Your task to perform on an android device: turn off priority inbox in the gmail app Image 0: 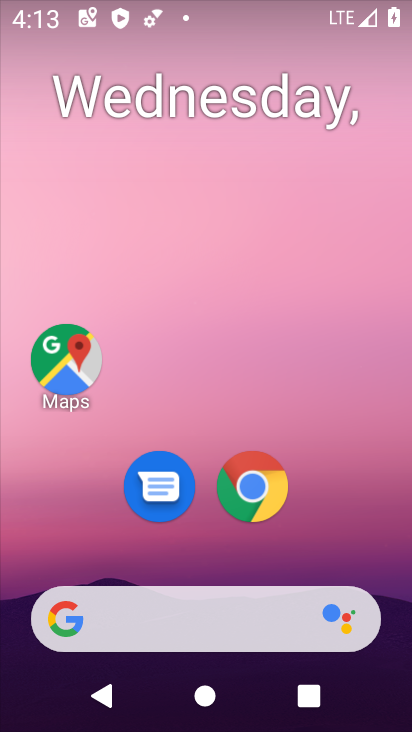
Step 0: drag from (194, 589) to (263, 129)
Your task to perform on an android device: turn off priority inbox in the gmail app Image 1: 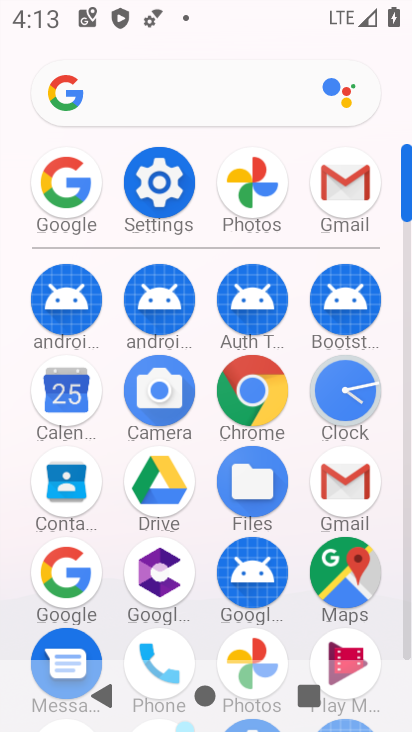
Step 1: click (334, 486)
Your task to perform on an android device: turn off priority inbox in the gmail app Image 2: 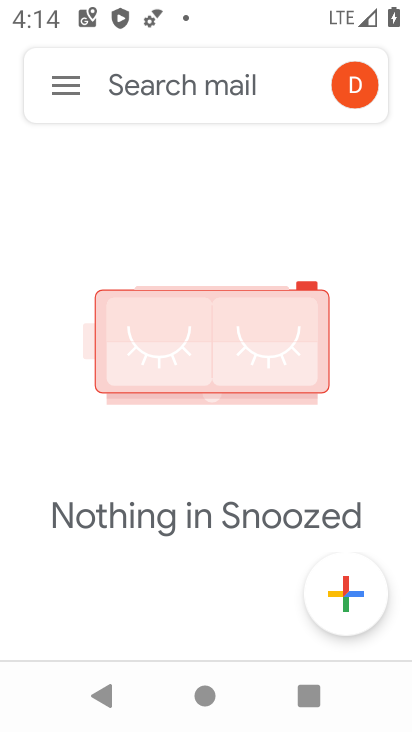
Step 2: click (68, 81)
Your task to perform on an android device: turn off priority inbox in the gmail app Image 3: 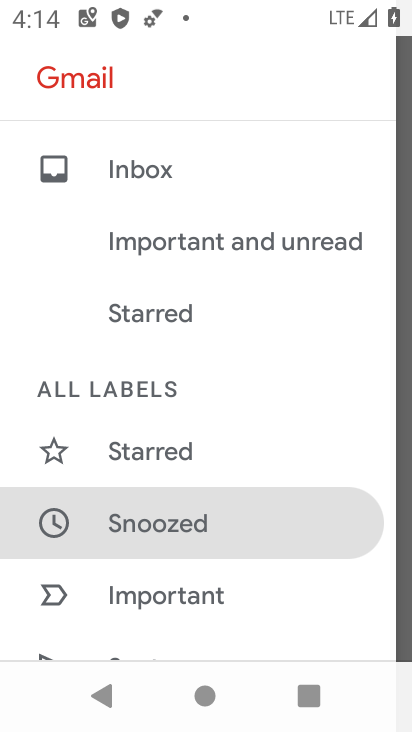
Step 3: drag from (245, 645) to (227, 306)
Your task to perform on an android device: turn off priority inbox in the gmail app Image 4: 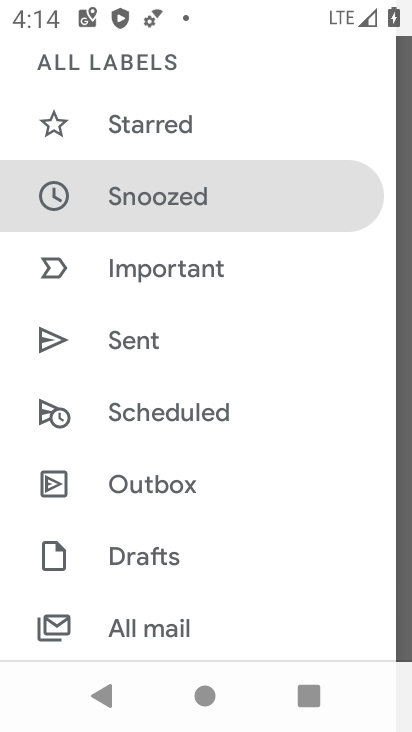
Step 4: drag from (188, 615) to (228, 324)
Your task to perform on an android device: turn off priority inbox in the gmail app Image 5: 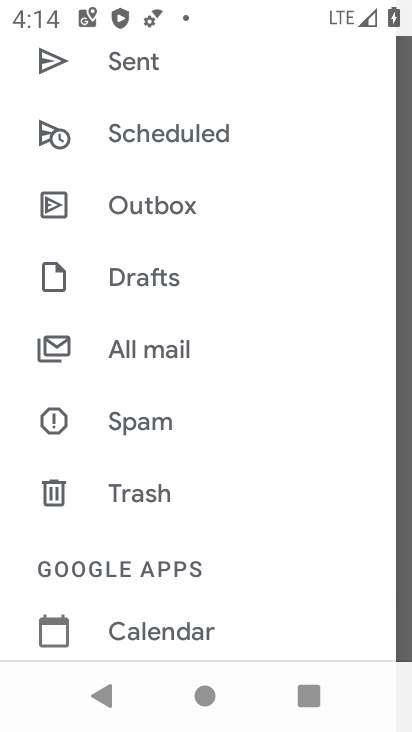
Step 5: drag from (246, 420) to (261, 292)
Your task to perform on an android device: turn off priority inbox in the gmail app Image 6: 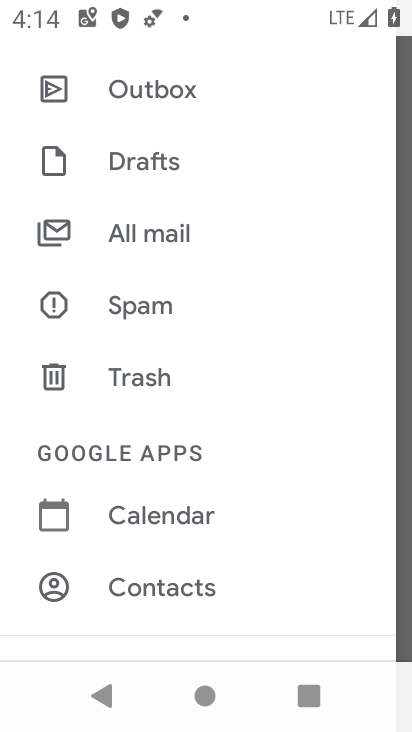
Step 6: drag from (226, 601) to (239, 296)
Your task to perform on an android device: turn off priority inbox in the gmail app Image 7: 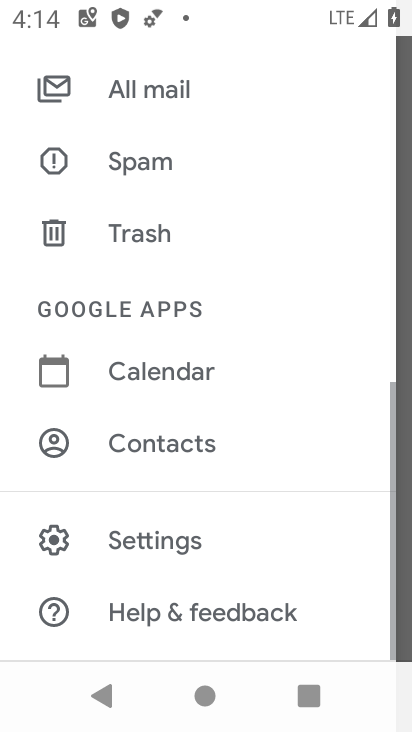
Step 7: click (172, 546)
Your task to perform on an android device: turn off priority inbox in the gmail app Image 8: 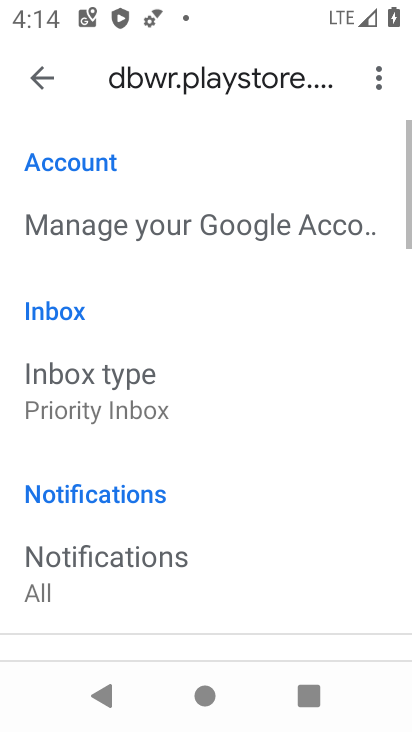
Step 8: drag from (191, 608) to (255, 204)
Your task to perform on an android device: turn off priority inbox in the gmail app Image 9: 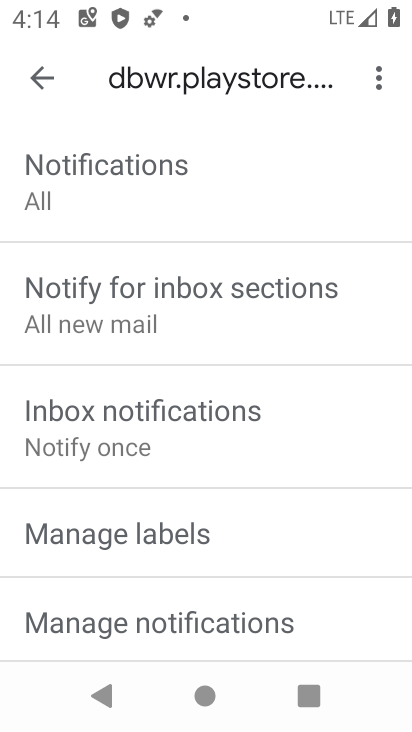
Step 9: drag from (202, 603) to (238, 267)
Your task to perform on an android device: turn off priority inbox in the gmail app Image 10: 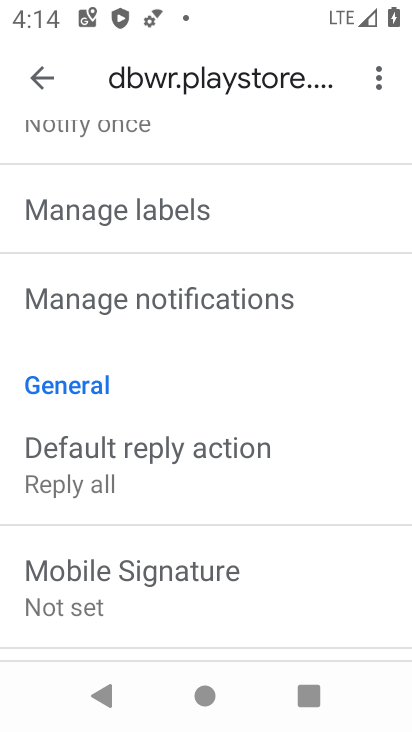
Step 10: drag from (202, 636) to (252, 326)
Your task to perform on an android device: turn off priority inbox in the gmail app Image 11: 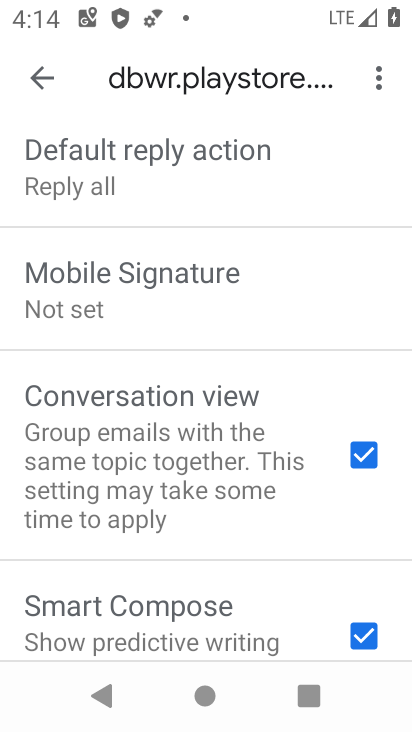
Step 11: drag from (352, 152) to (242, 601)
Your task to perform on an android device: turn off priority inbox in the gmail app Image 12: 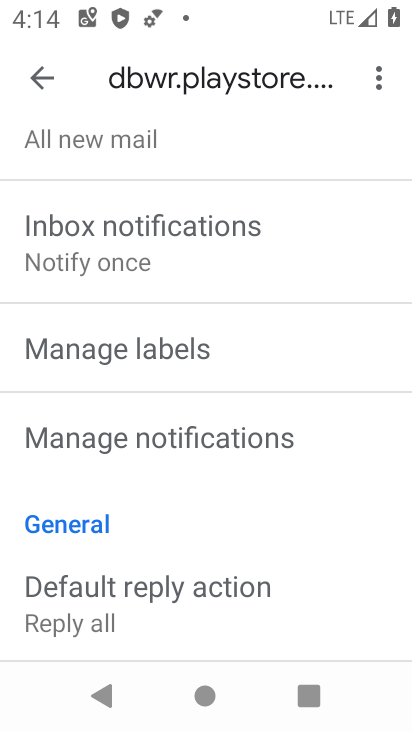
Step 12: drag from (365, 203) to (313, 635)
Your task to perform on an android device: turn off priority inbox in the gmail app Image 13: 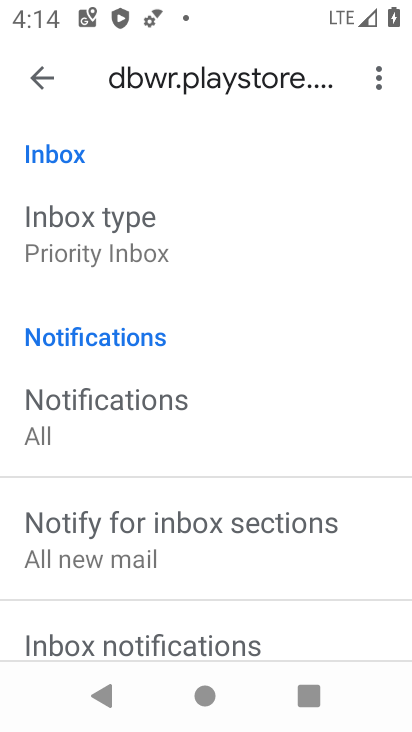
Step 13: click (130, 239)
Your task to perform on an android device: turn off priority inbox in the gmail app Image 14: 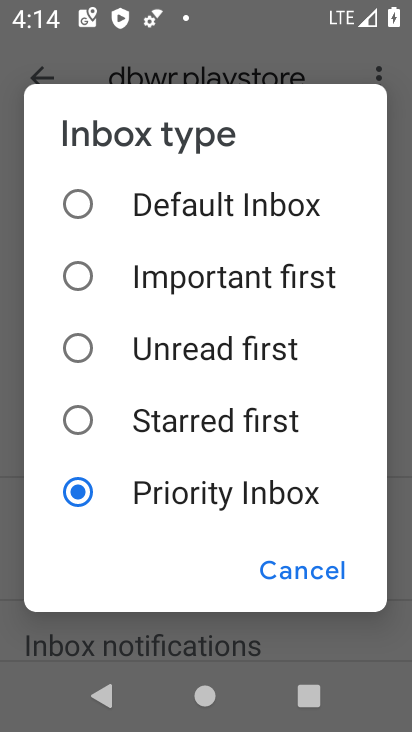
Step 14: click (152, 276)
Your task to perform on an android device: turn off priority inbox in the gmail app Image 15: 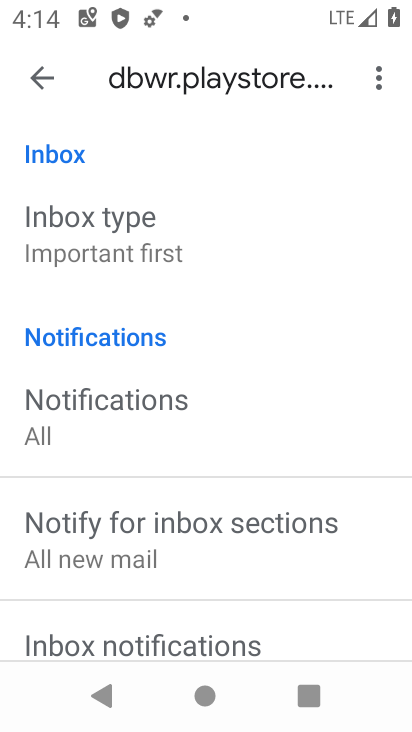
Step 15: task complete